Your task to perform on an android device: turn off translation in the chrome app Image 0: 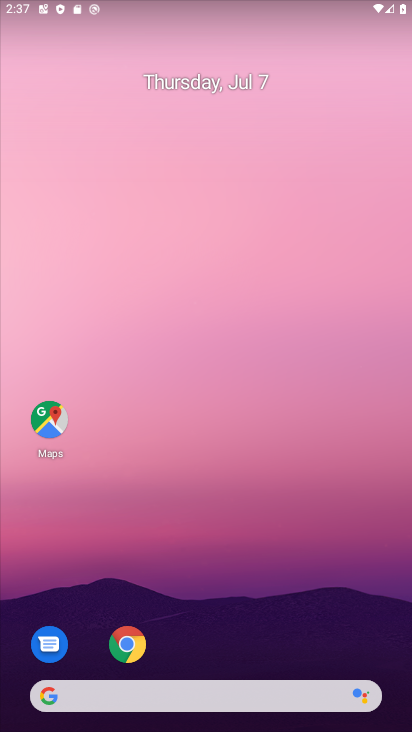
Step 0: press home button
Your task to perform on an android device: turn off translation in the chrome app Image 1: 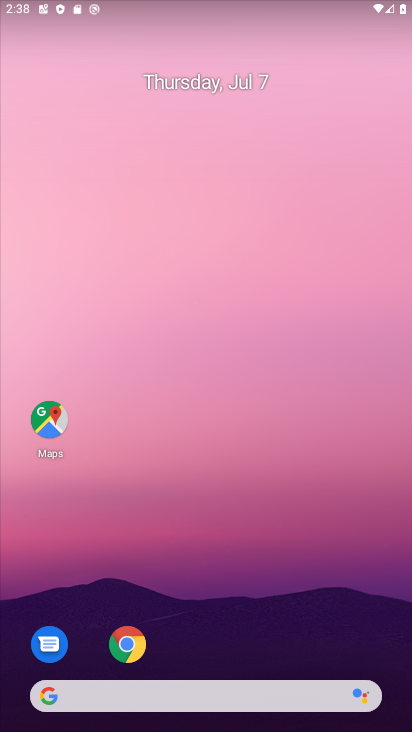
Step 1: click (125, 645)
Your task to perform on an android device: turn off translation in the chrome app Image 2: 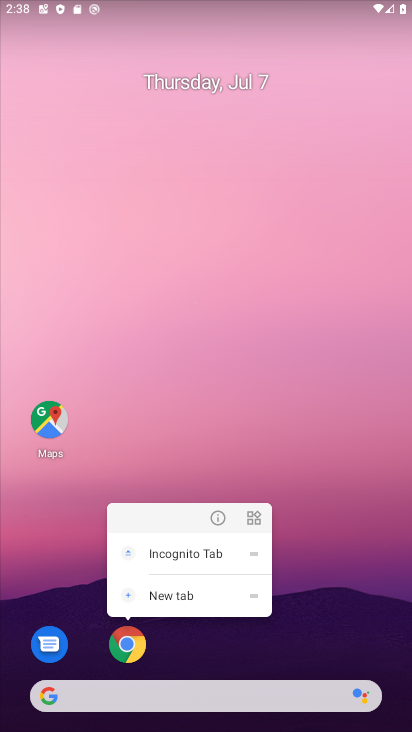
Step 2: click (233, 650)
Your task to perform on an android device: turn off translation in the chrome app Image 3: 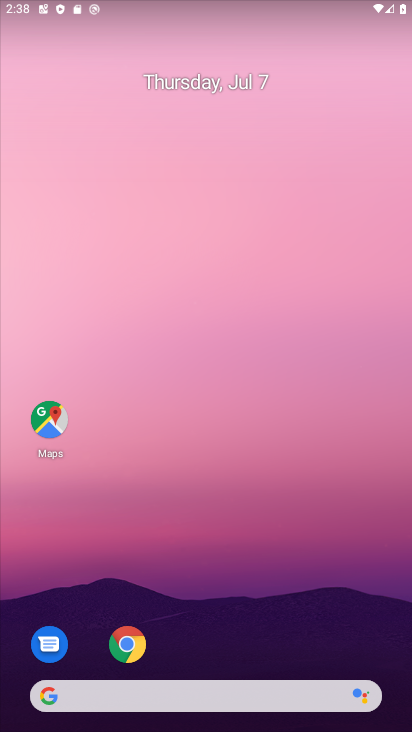
Step 3: drag from (258, 610) to (217, 1)
Your task to perform on an android device: turn off translation in the chrome app Image 4: 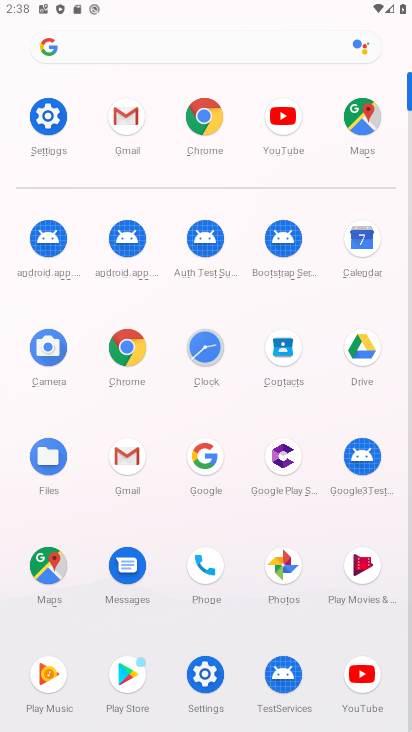
Step 4: click (207, 118)
Your task to perform on an android device: turn off translation in the chrome app Image 5: 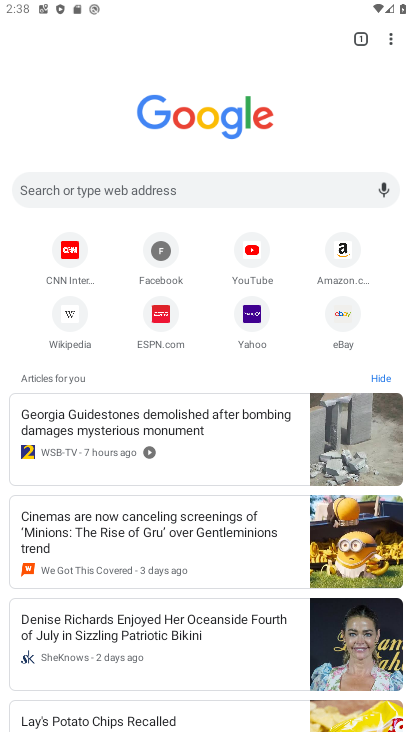
Step 5: drag from (389, 35) to (248, 332)
Your task to perform on an android device: turn off translation in the chrome app Image 6: 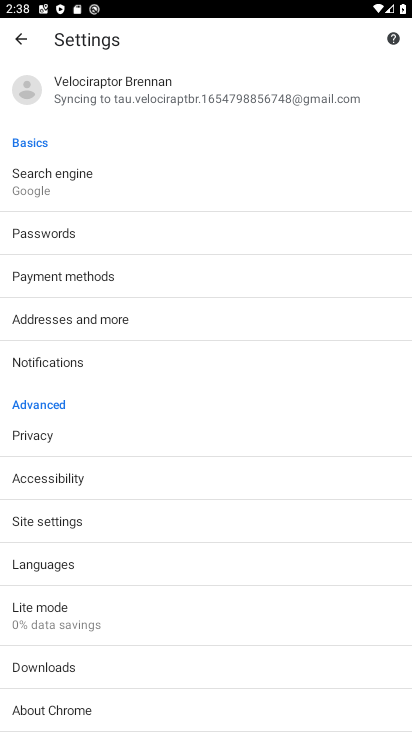
Step 6: click (42, 565)
Your task to perform on an android device: turn off translation in the chrome app Image 7: 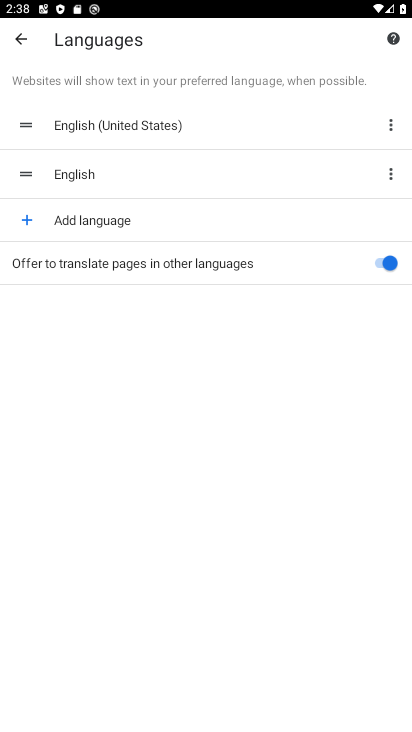
Step 7: click (390, 264)
Your task to perform on an android device: turn off translation in the chrome app Image 8: 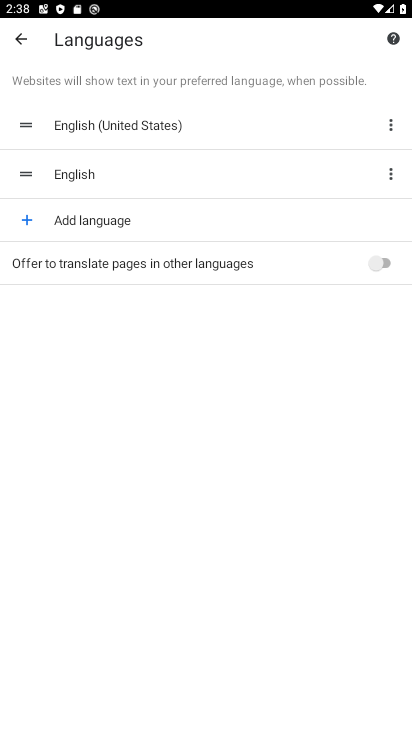
Step 8: task complete